Your task to perform on an android device: Search for the best way to get rid of a cold Image 0: 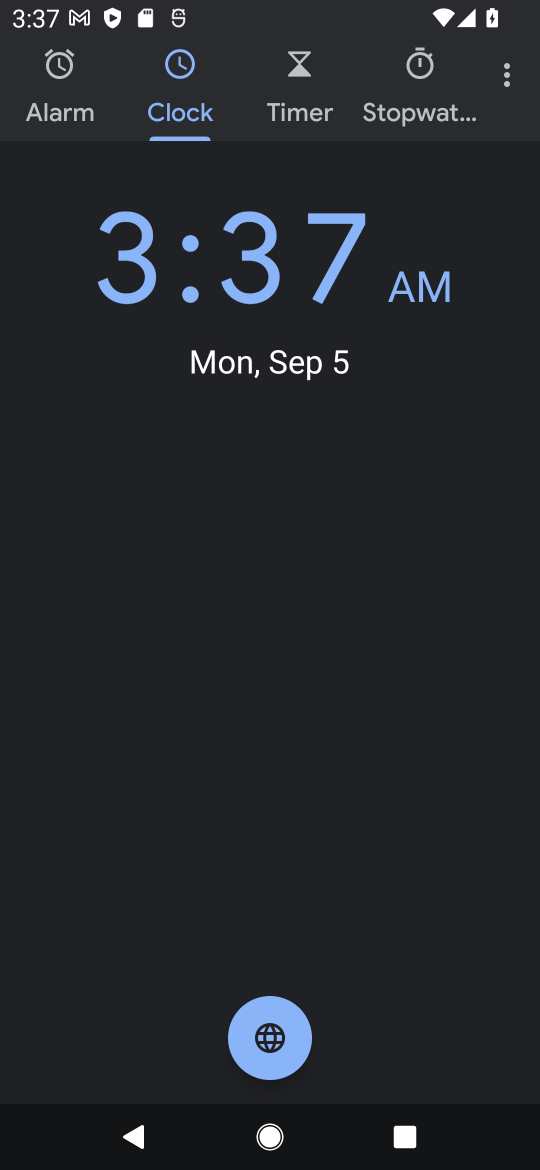
Step 0: press home button
Your task to perform on an android device: Search for the best way to get rid of a cold Image 1: 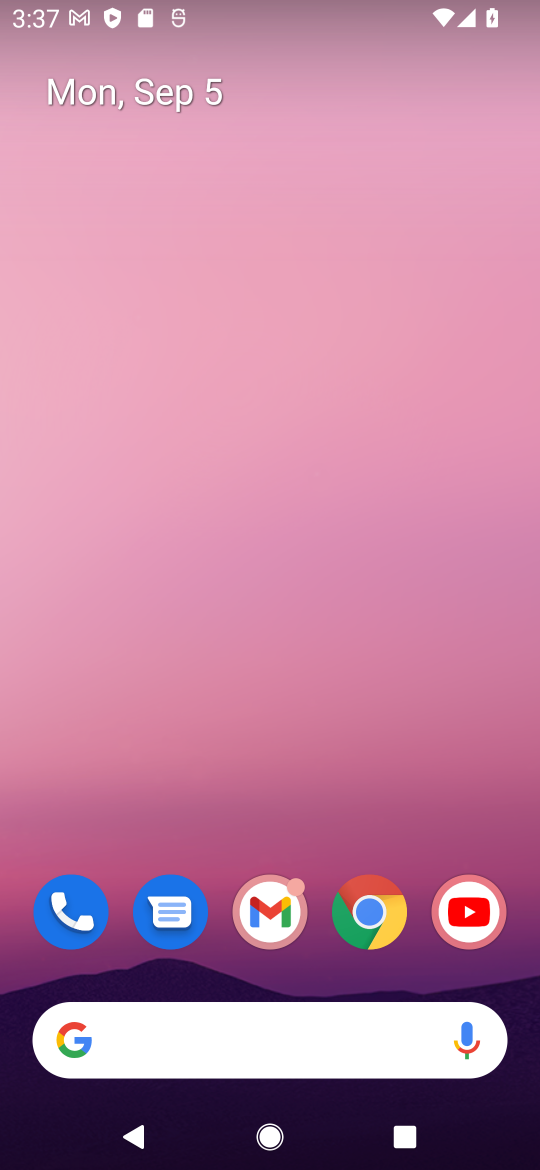
Step 1: click (363, 903)
Your task to perform on an android device: Search for the best way to get rid of a cold Image 2: 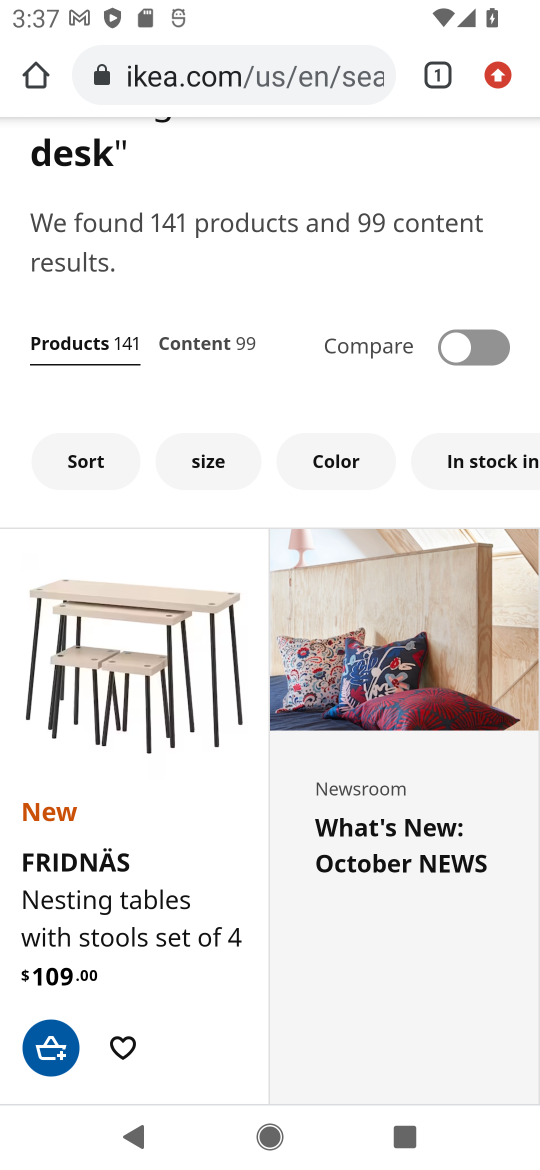
Step 2: click (257, 73)
Your task to perform on an android device: Search for the best way to get rid of a cold Image 3: 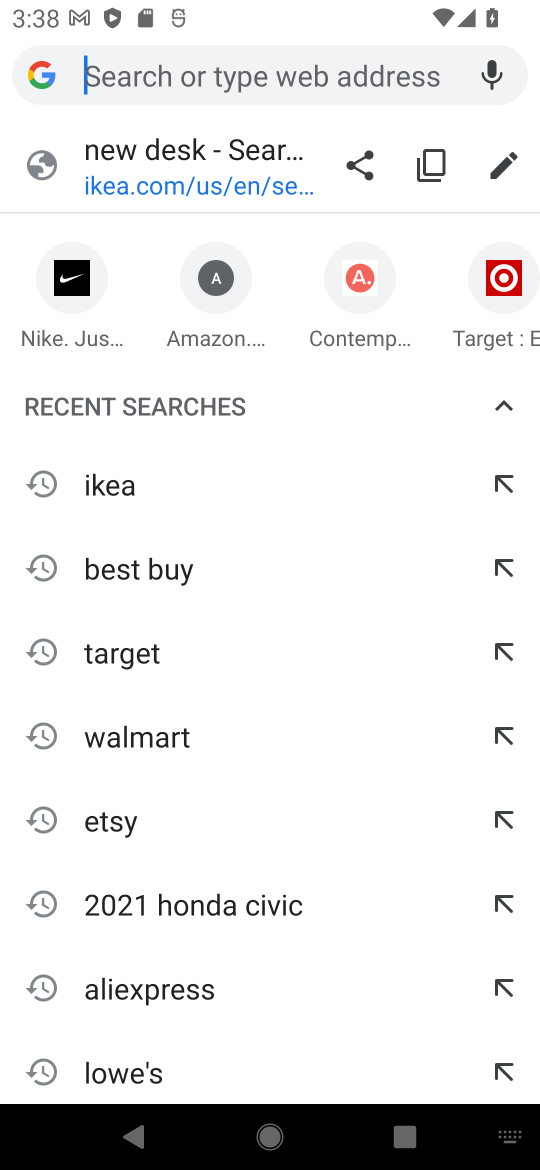
Step 3: type "best way to get rid of a cold"
Your task to perform on an android device: Search for the best way to get rid of a cold Image 4: 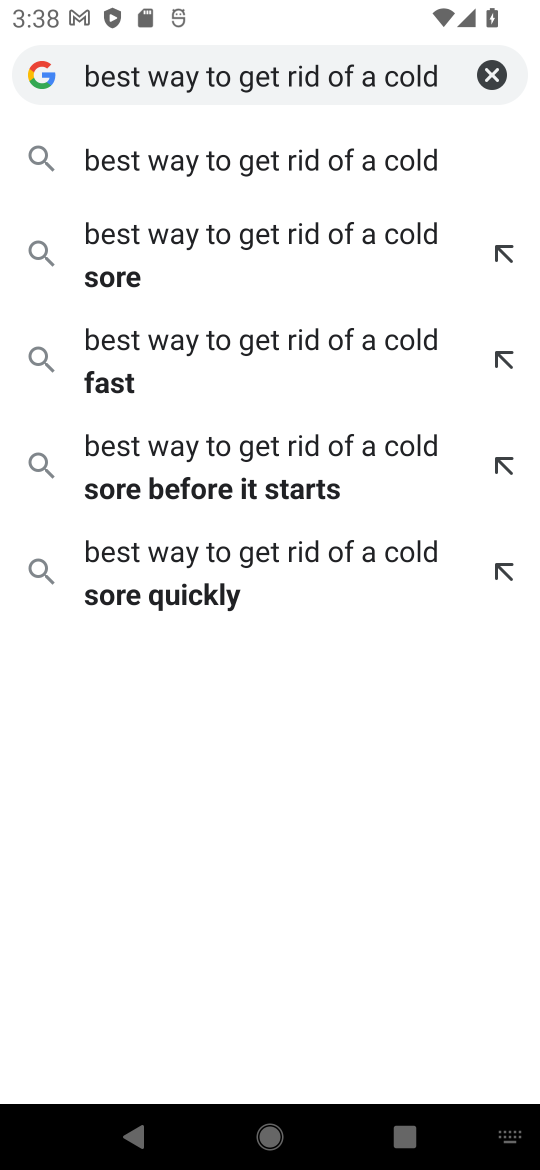
Step 4: press enter
Your task to perform on an android device: Search for the best way to get rid of a cold Image 5: 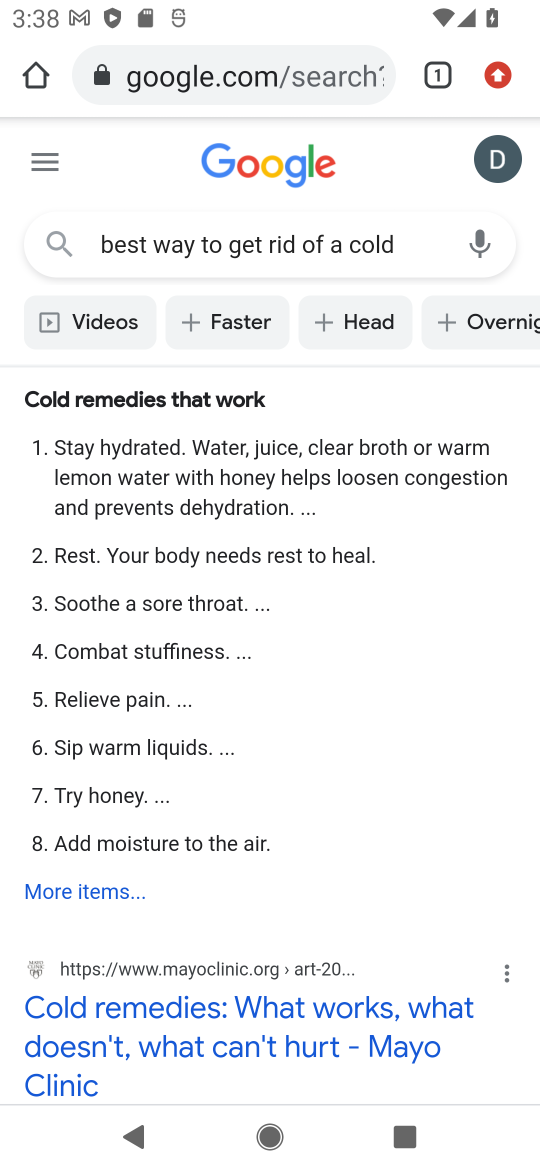
Step 5: task complete